Your task to perform on an android device: check android version Image 0: 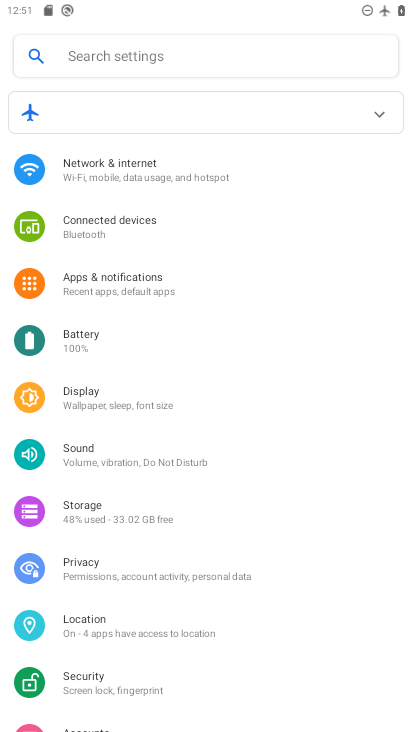
Step 0: drag from (260, 659) to (214, 152)
Your task to perform on an android device: check android version Image 1: 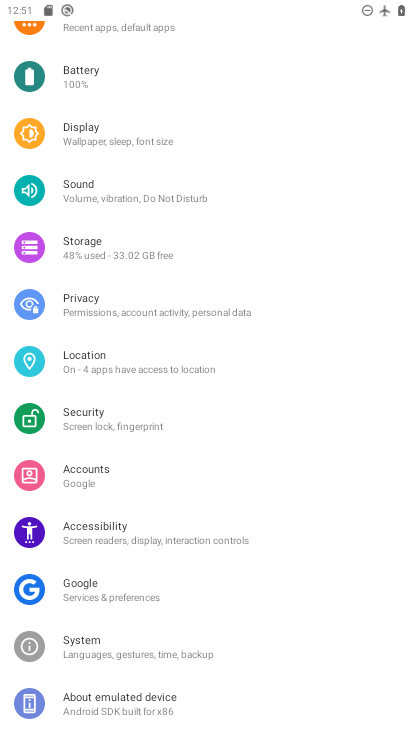
Step 1: click (79, 693)
Your task to perform on an android device: check android version Image 2: 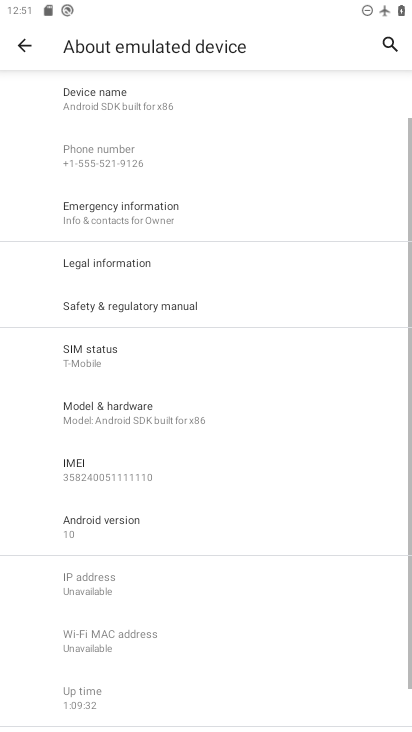
Step 2: click (151, 528)
Your task to perform on an android device: check android version Image 3: 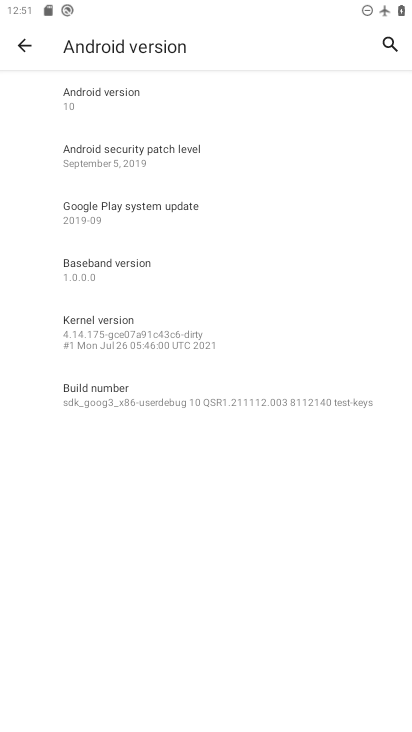
Step 3: click (136, 90)
Your task to perform on an android device: check android version Image 4: 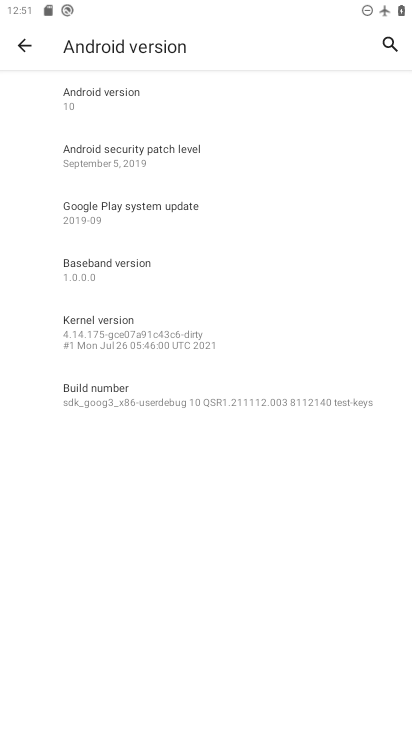
Step 4: task complete